Your task to perform on an android device: turn on improve location accuracy Image 0: 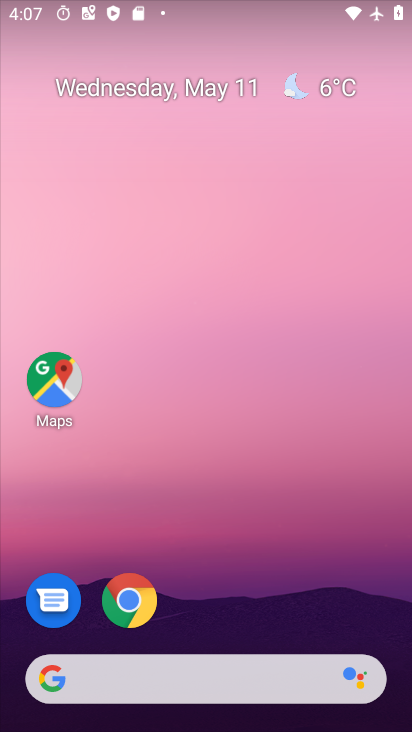
Step 0: drag from (341, 698) to (196, 94)
Your task to perform on an android device: turn on improve location accuracy Image 1: 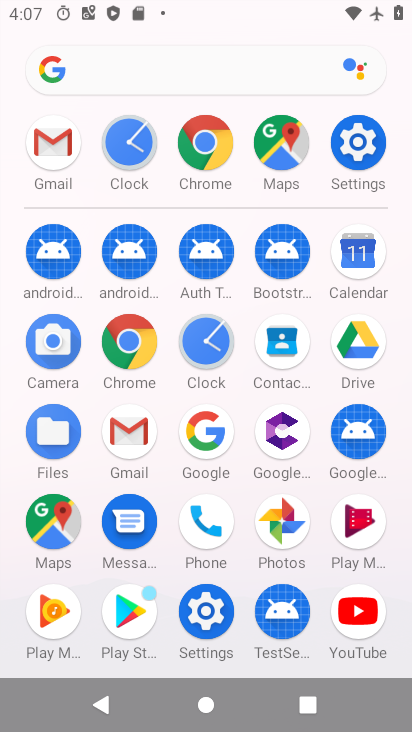
Step 1: click (359, 146)
Your task to perform on an android device: turn on improve location accuracy Image 2: 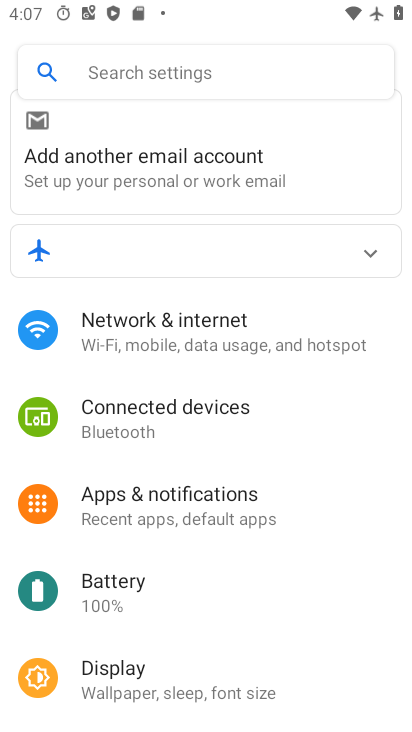
Step 2: drag from (227, 652) to (203, 321)
Your task to perform on an android device: turn on improve location accuracy Image 3: 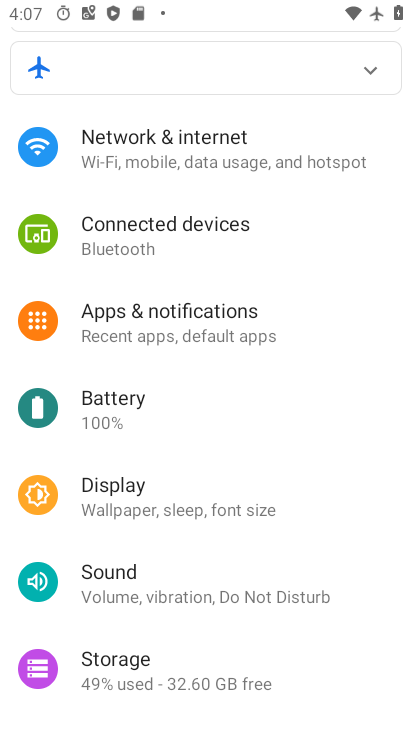
Step 3: drag from (200, 577) to (235, 294)
Your task to perform on an android device: turn on improve location accuracy Image 4: 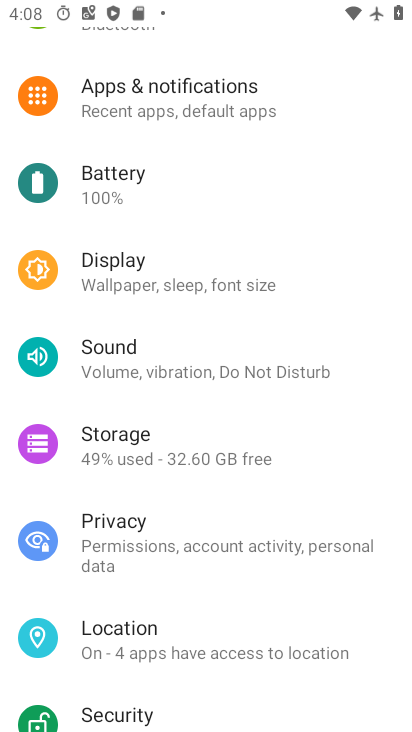
Step 4: click (132, 634)
Your task to perform on an android device: turn on improve location accuracy Image 5: 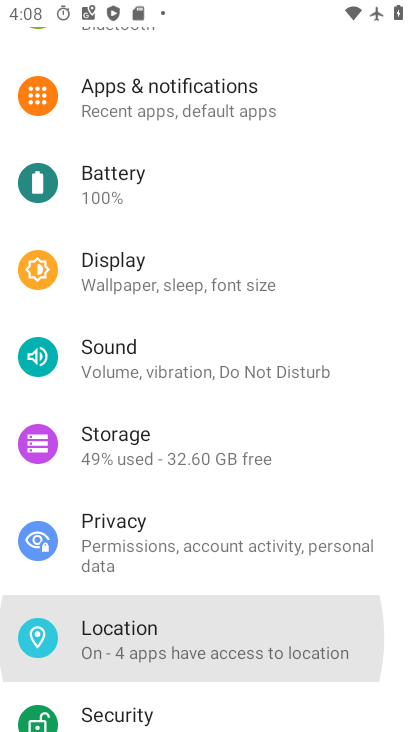
Step 5: click (135, 633)
Your task to perform on an android device: turn on improve location accuracy Image 6: 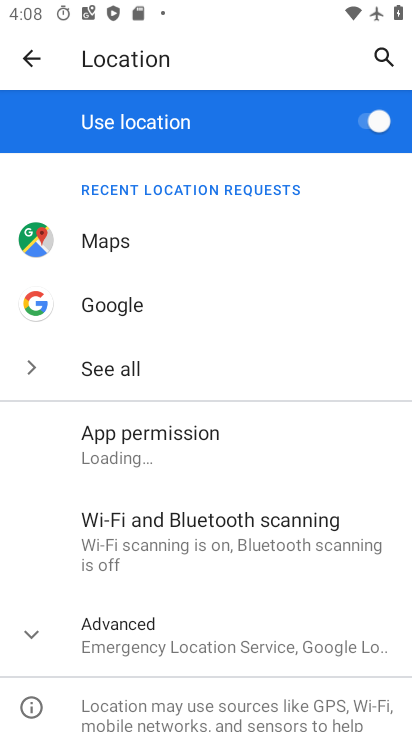
Step 6: click (146, 635)
Your task to perform on an android device: turn on improve location accuracy Image 7: 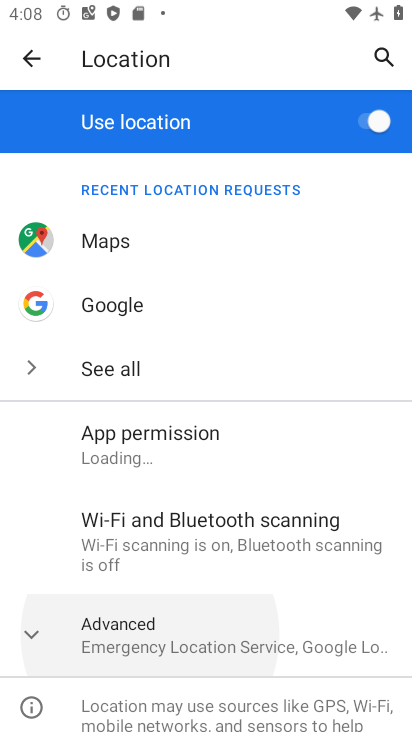
Step 7: click (147, 631)
Your task to perform on an android device: turn on improve location accuracy Image 8: 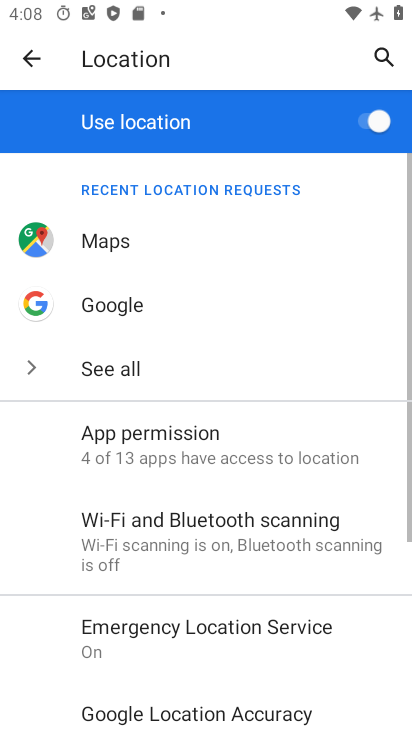
Step 8: drag from (216, 607) to (178, 255)
Your task to perform on an android device: turn on improve location accuracy Image 9: 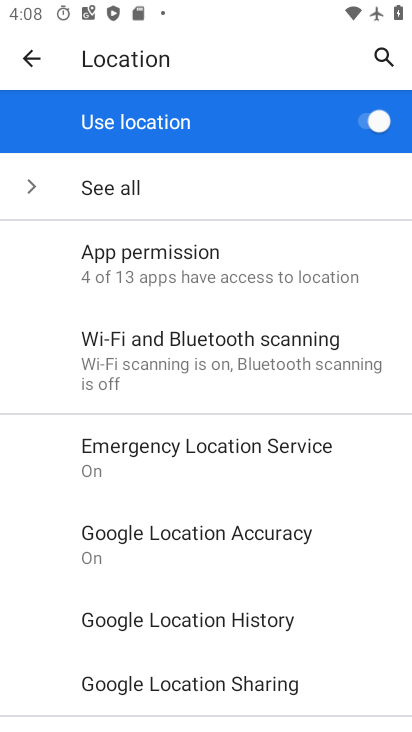
Step 9: click (176, 545)
Your task to perform on an android device: turn on improve location accuracy Image 10: 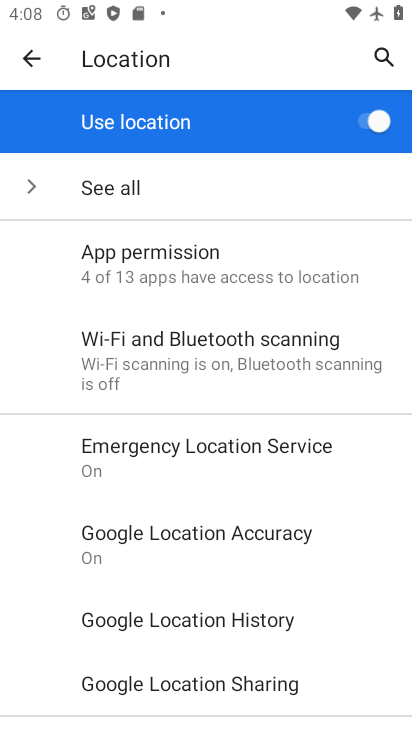
Step 10: click (176, 545)
Your task to perform on an android device: turn on improve location accuracy Image 11: 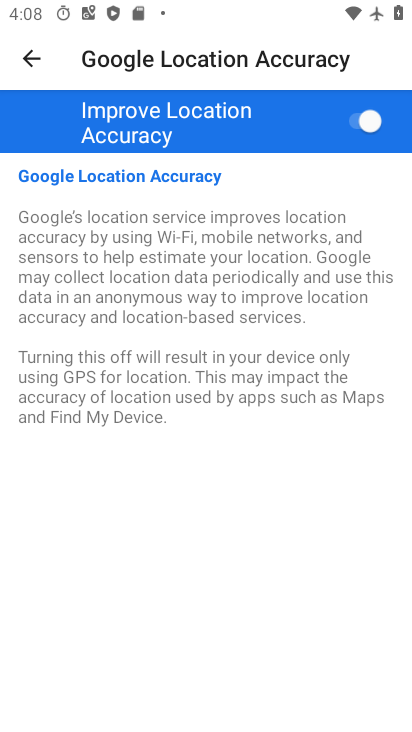
Step 11: task complete